Your task to perform on an android device: Search for the best selling TV on Best Buy. Image 0: 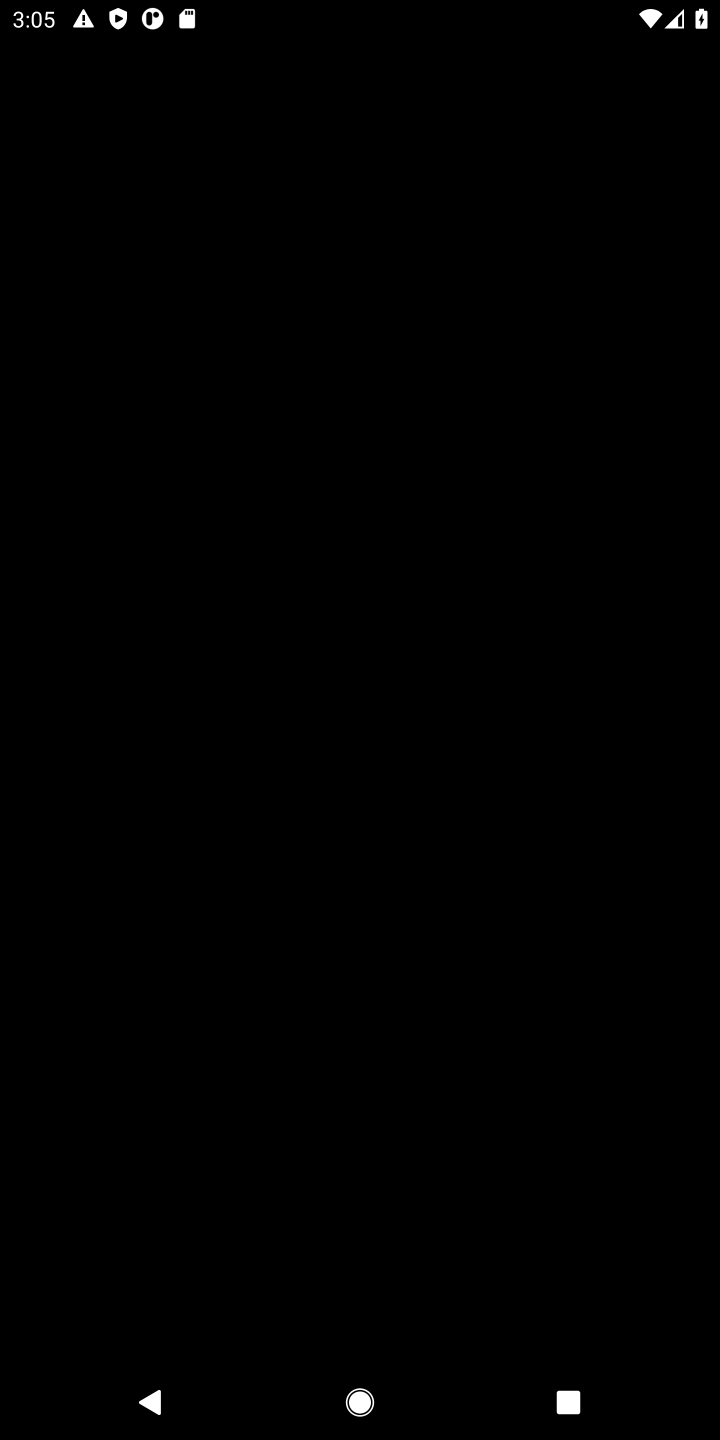
Step 0: press home button
Your task to perform on an android device: Search for the best selling TV on Best Buy. Image 1: 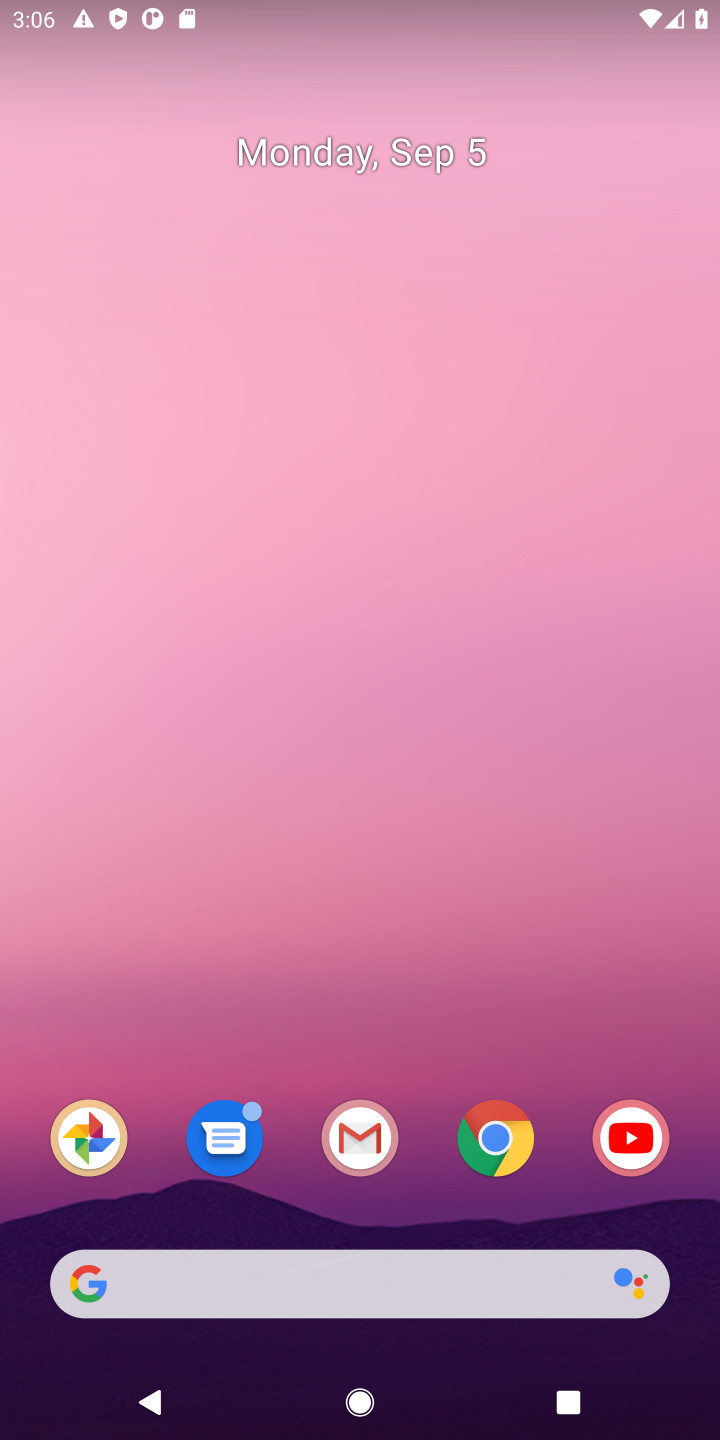
Step 1: click (499, 1140)
Your task to perform on an android device: Search for the best selling TV on Best Buy. Image 2: 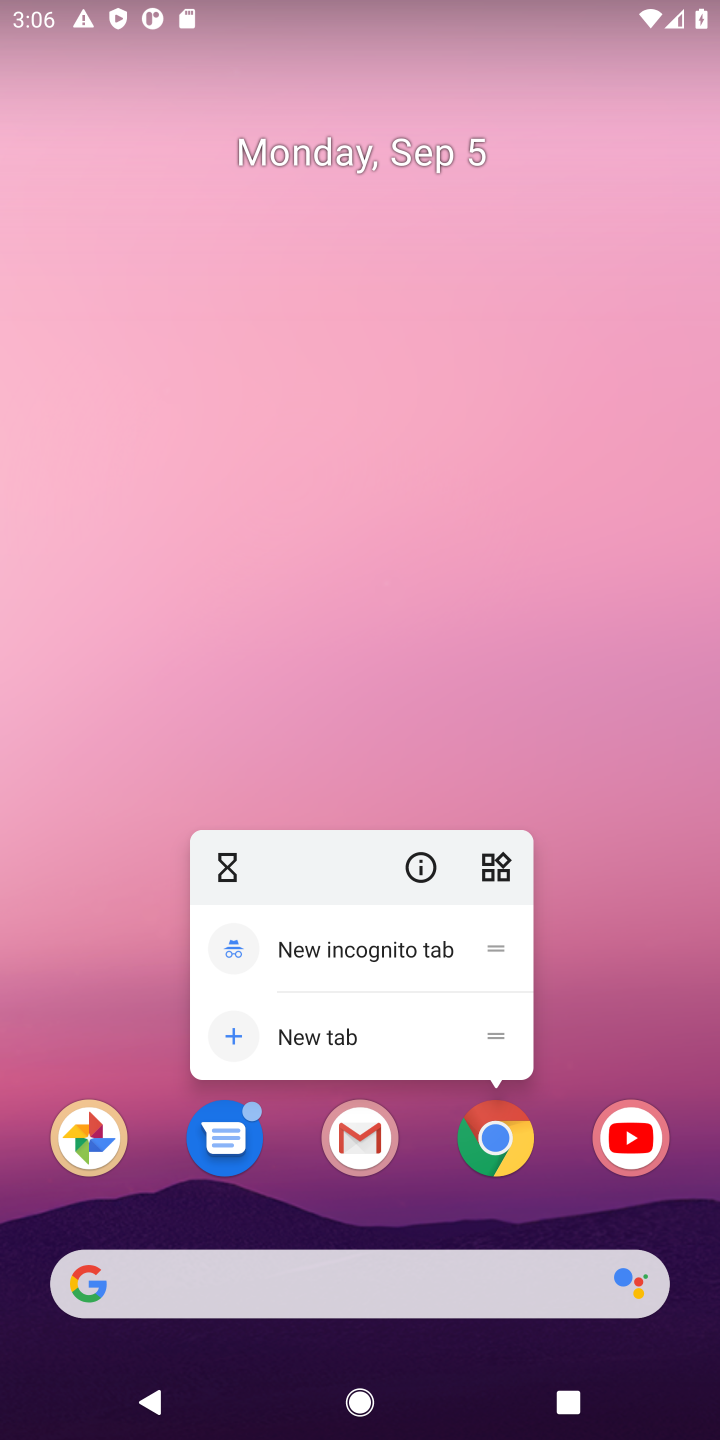
Step 2: click (499, 1139)
Your task to perform on an android device: Search for the best selling TV on Best Buy. Image 3: 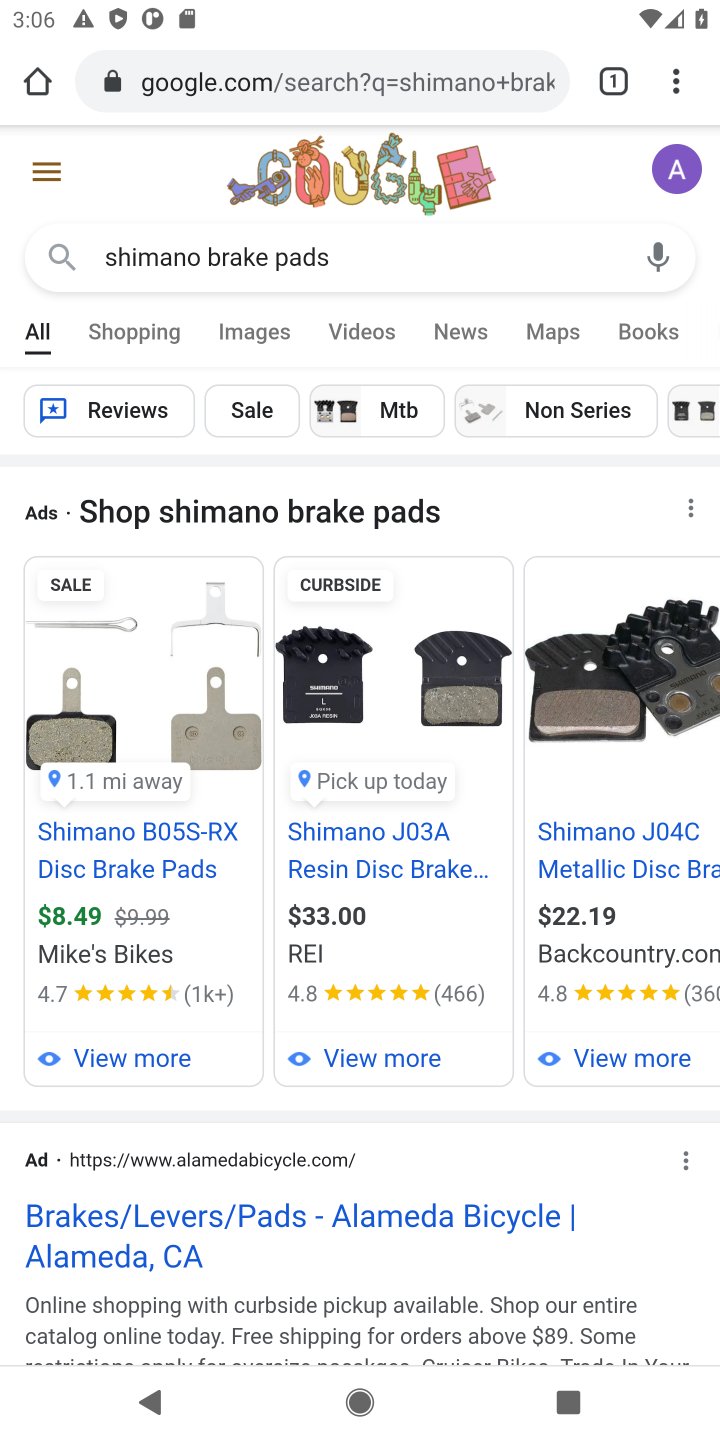
Step 3: click (498, 88)
Your task to perform on an android device: Search for the best selling TV on Best Buy. Image 4: 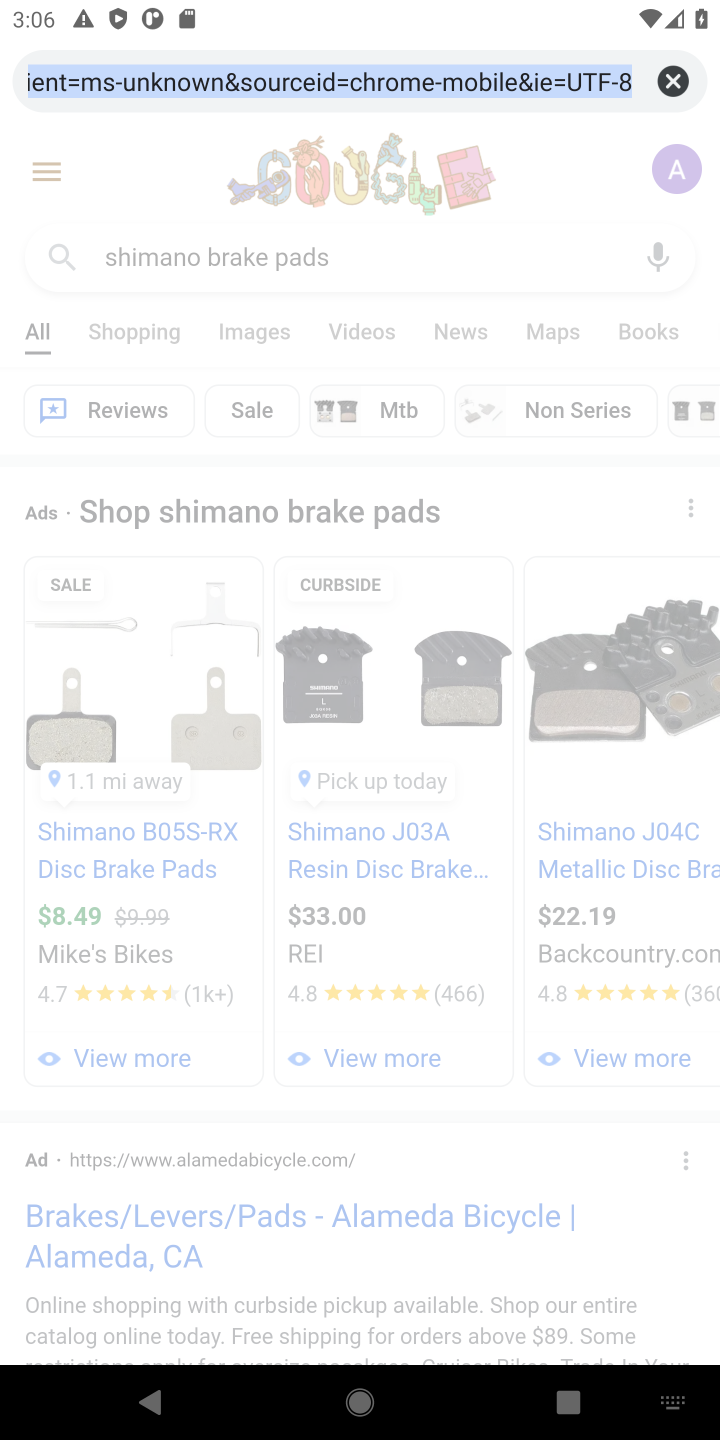
Step 4: type "Best Buy"
Your task to perform on an android device: Search for the best selling TV on Best Buy. Image 5: 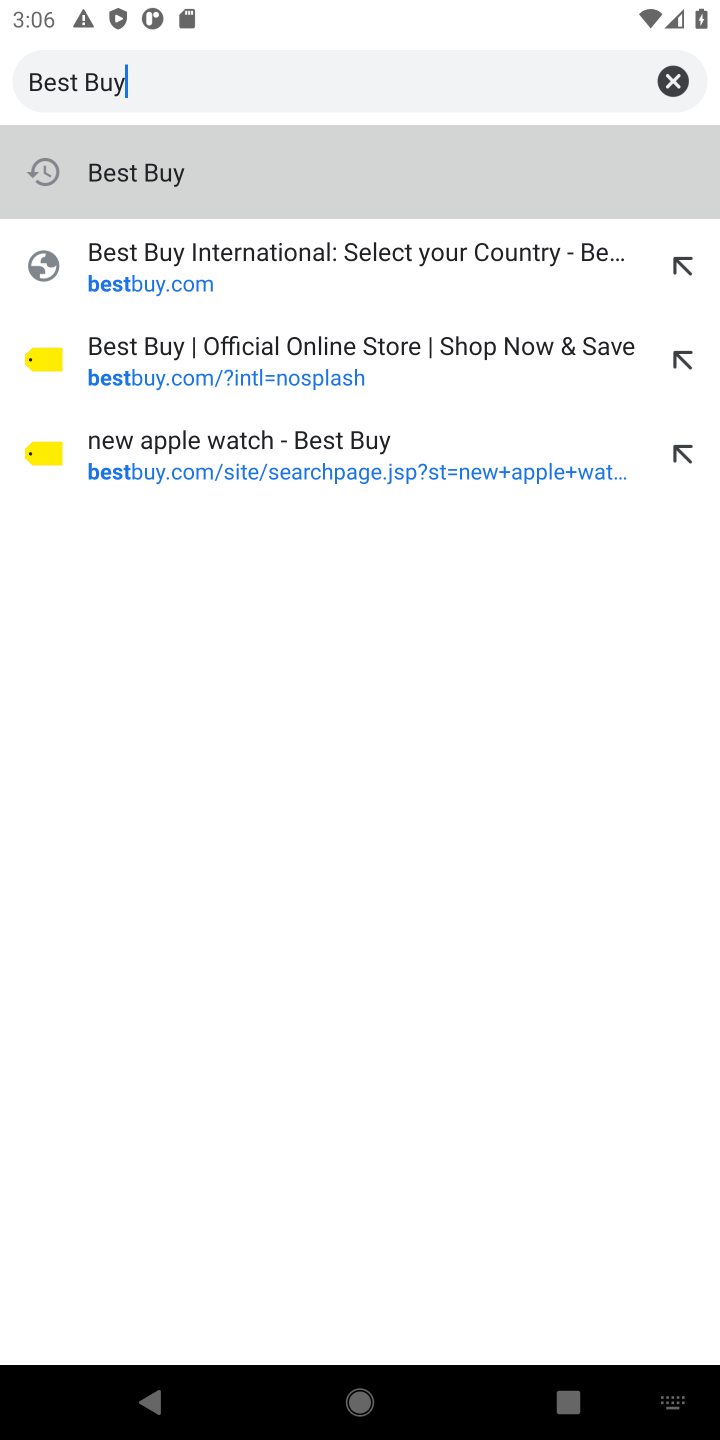
Step 5: click (176, 185)
Your task to perform on an android device: Search for the best selling TV on Best Buy. Image 6: 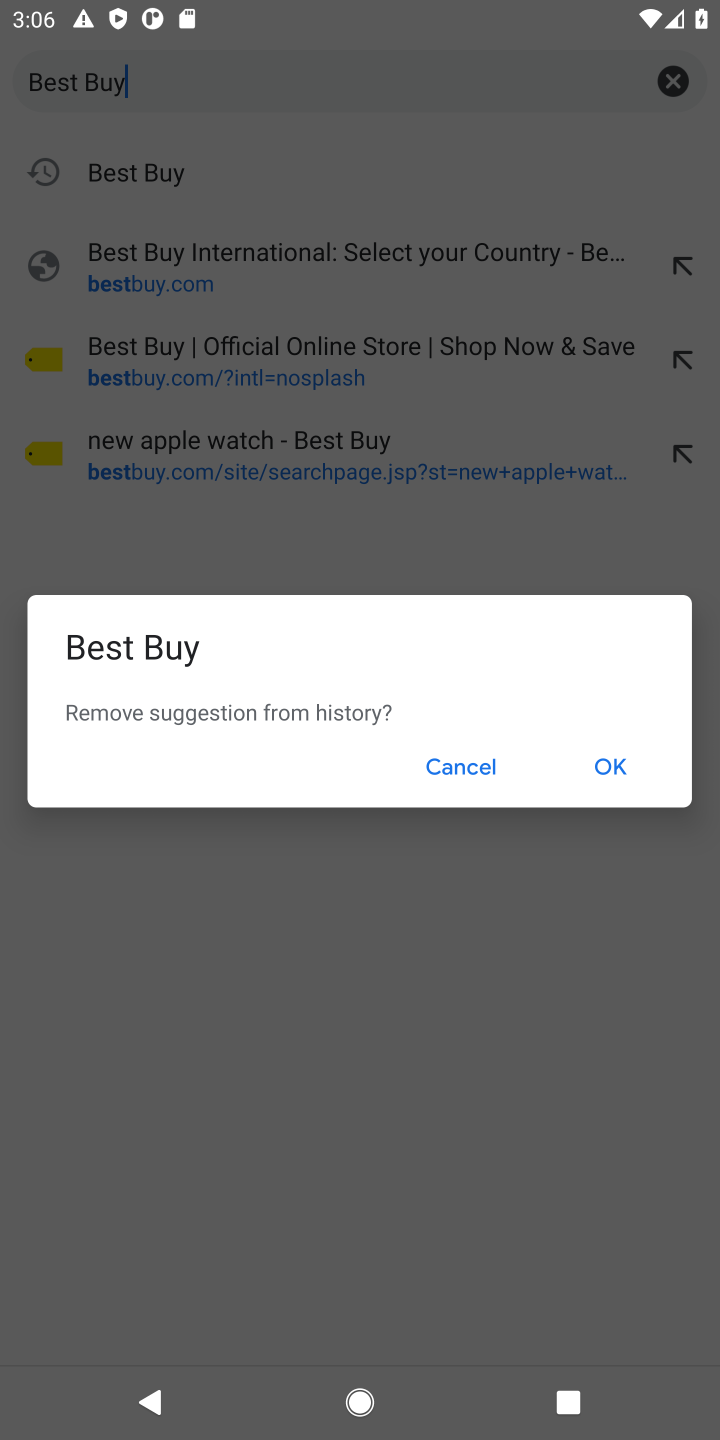
Step 6: click (176, 185)
Your task to perform on an android device: Search for the best selling TV on Best Buy. Image 7: 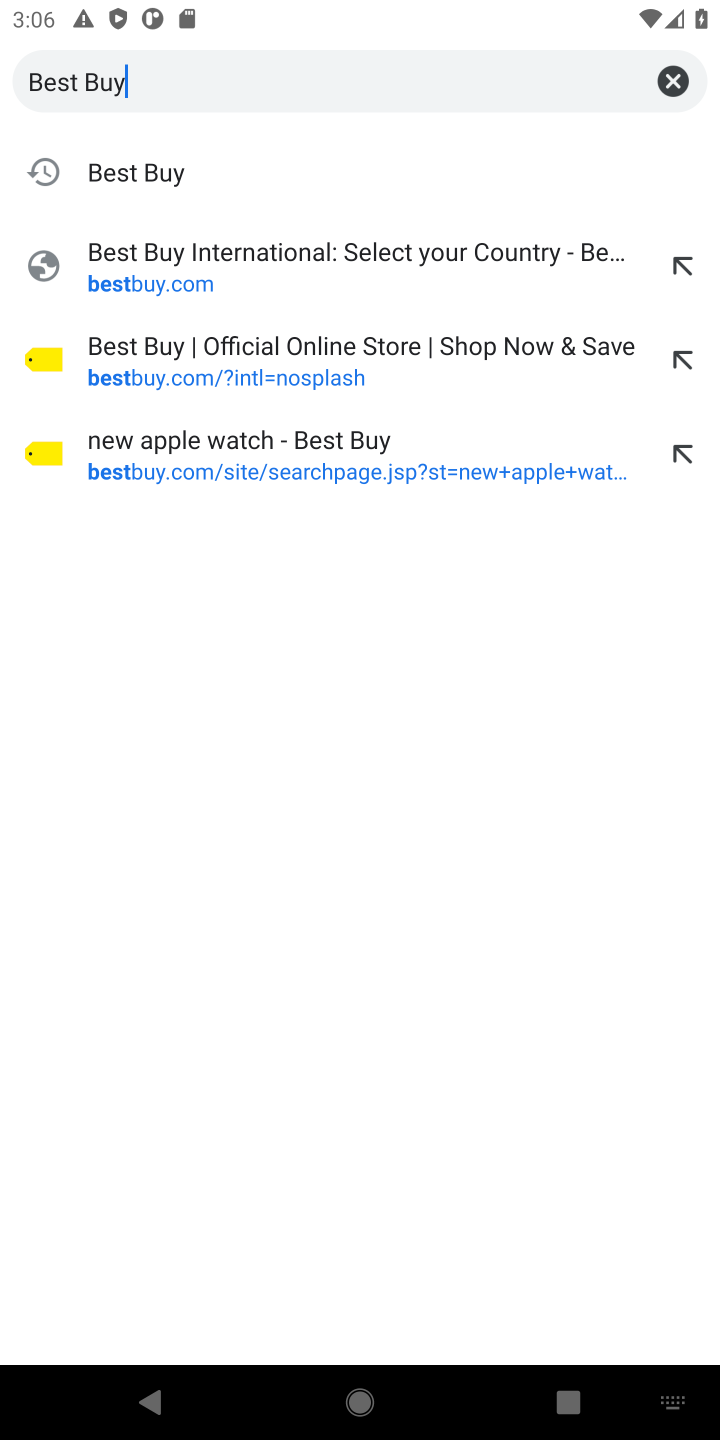
Step 7: click (215, 188)
Your task to perform on an android device: Search for the best selling TV on Best Buy. Image 8: 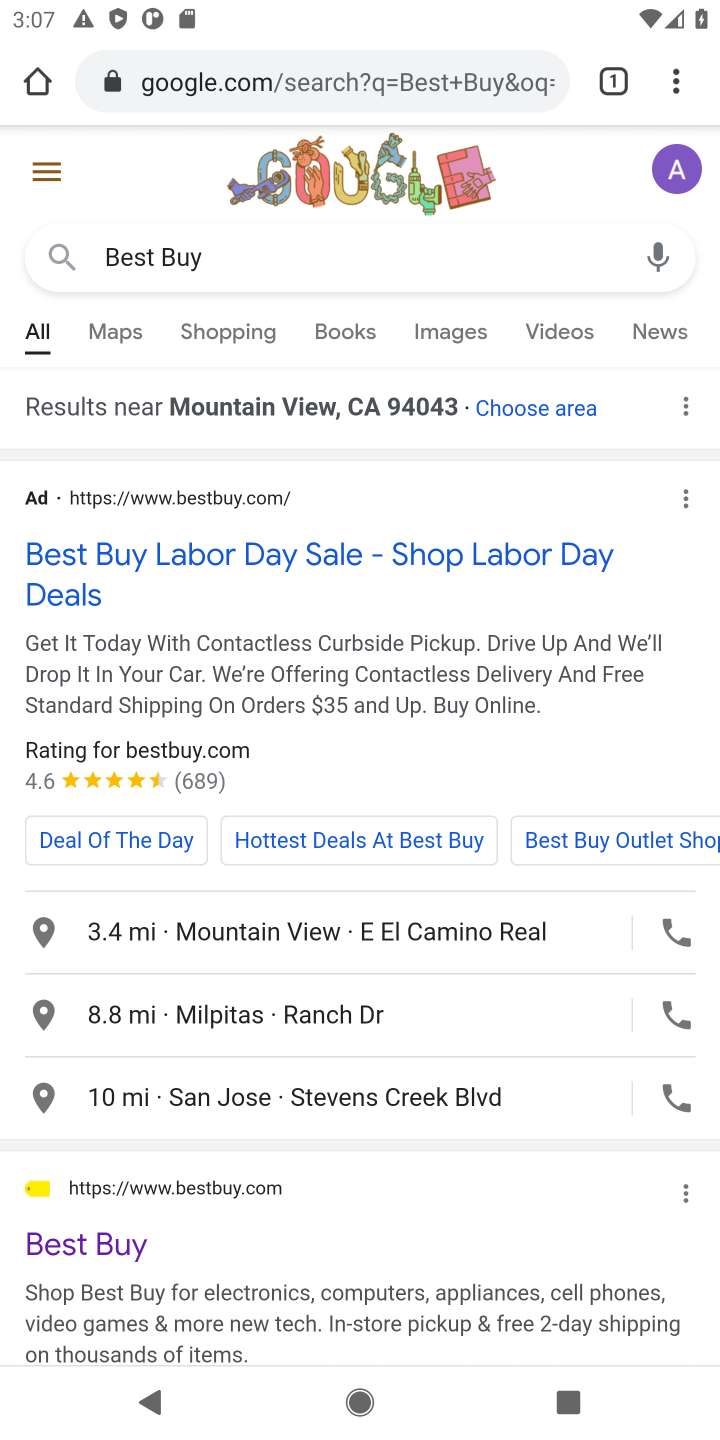
Step 8: click (136, 1256)
Your task to perform on an android device: Search for the best selling TV on Best Buy. Image 9: 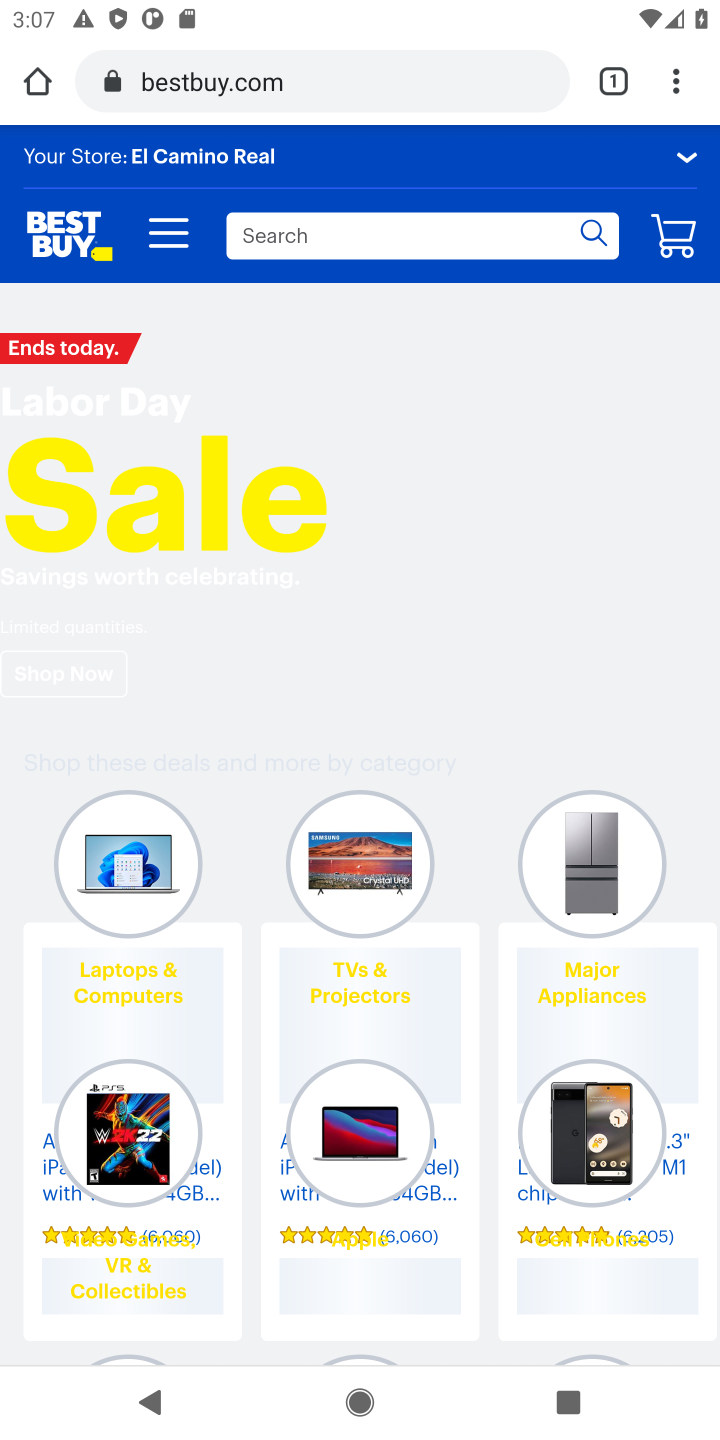
Step 9: click (470, 243)
Your task to perform on an android device: Search for the best selling TV on Best Buy. Image 10: 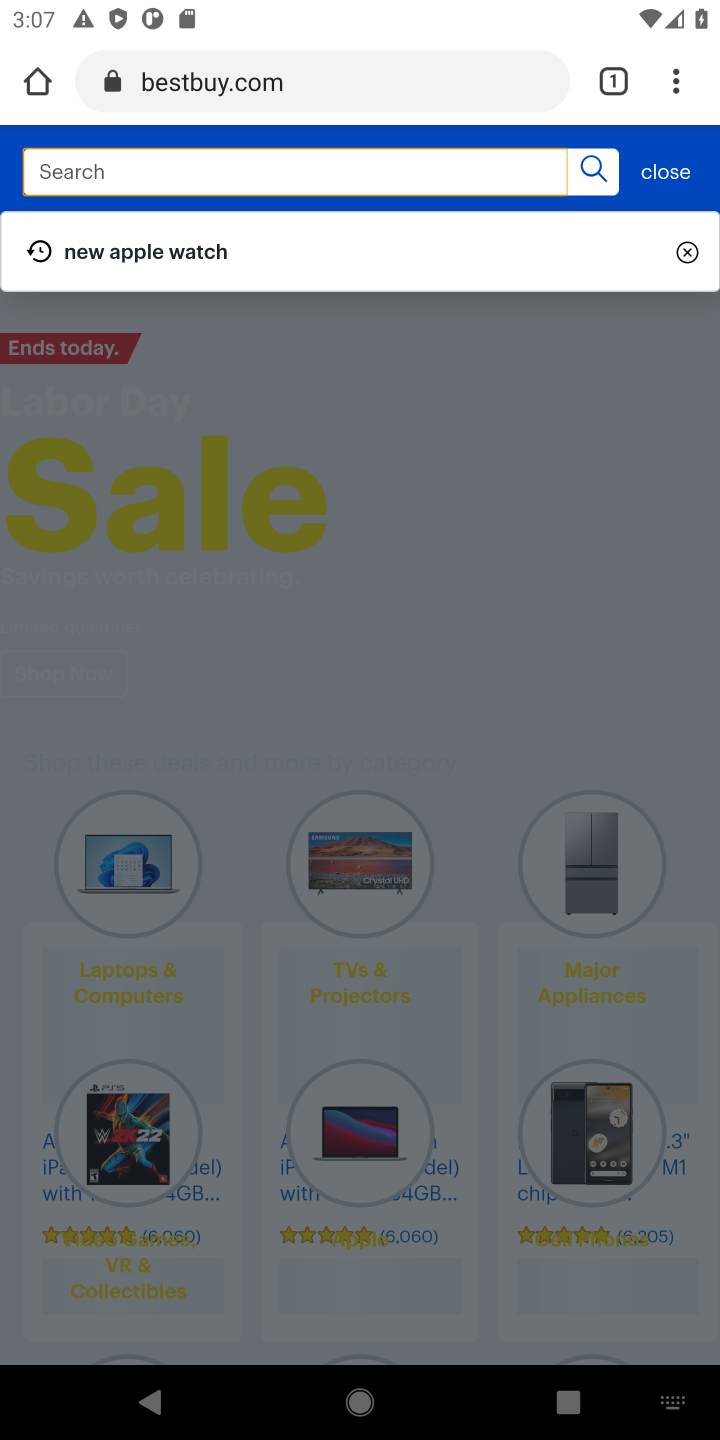
Step 10: type "best selling TV"
Your task to perform on an android device: Search for the best selling TV on Best Buy. Image 11: 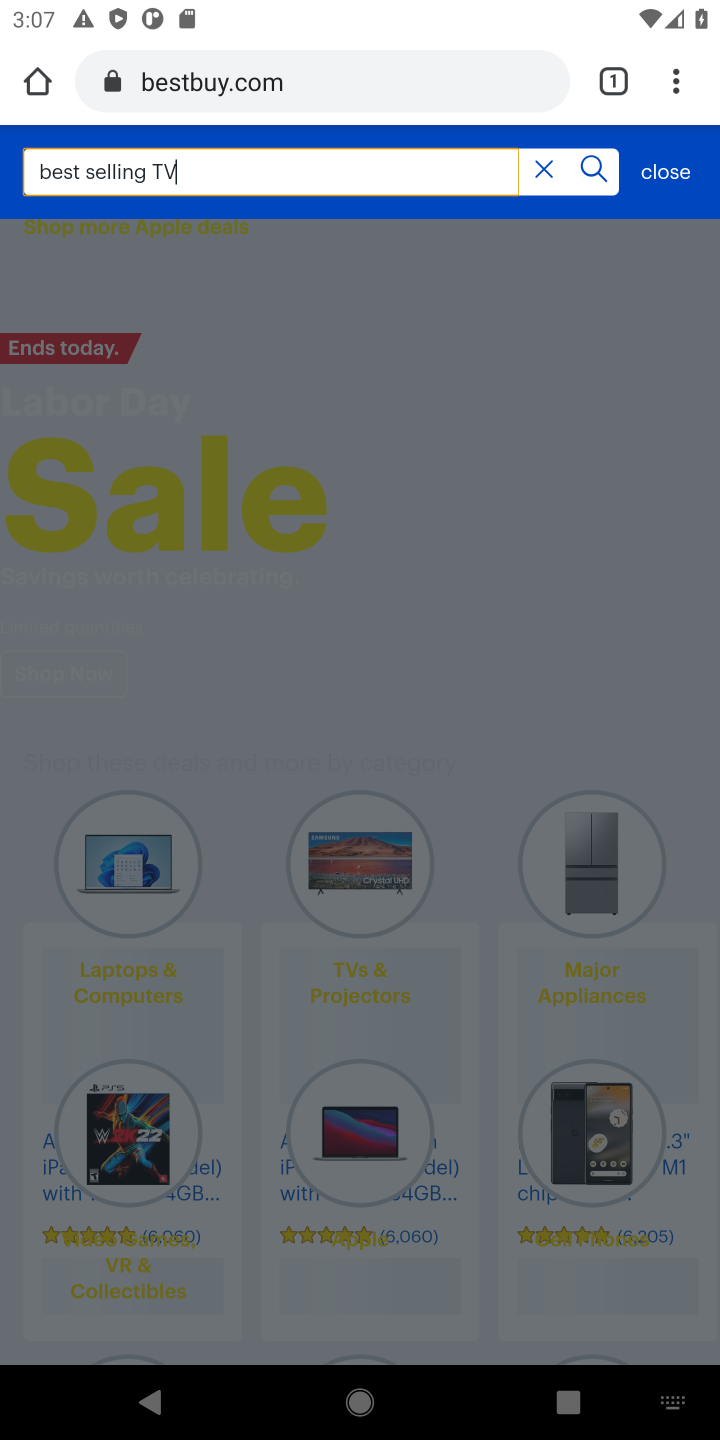
Step 11: click (590, 172)
Your task to perform on an android device: Search for the best selling TV on Best Buy. Image 12: 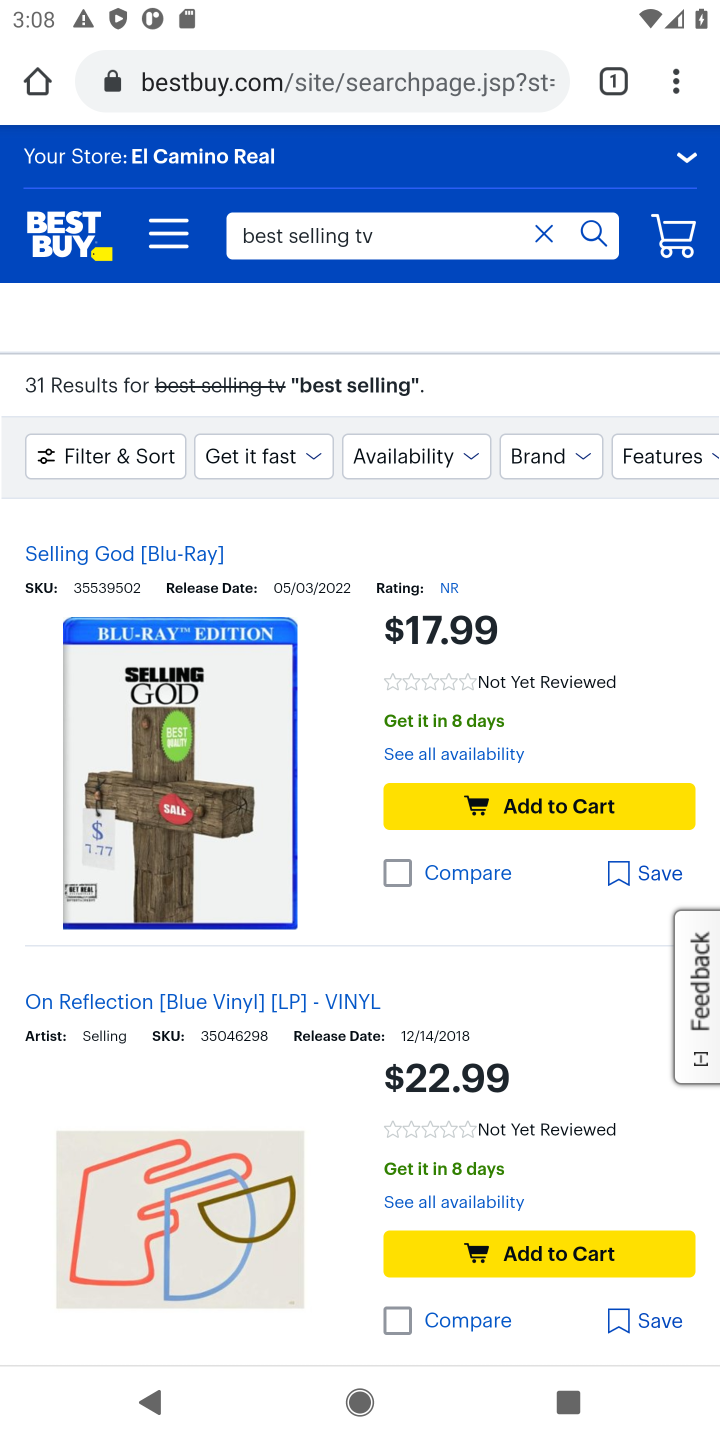
Step 12: task complete